Your task to perform on an android device: turn off data saver in the chrome app Image 0: 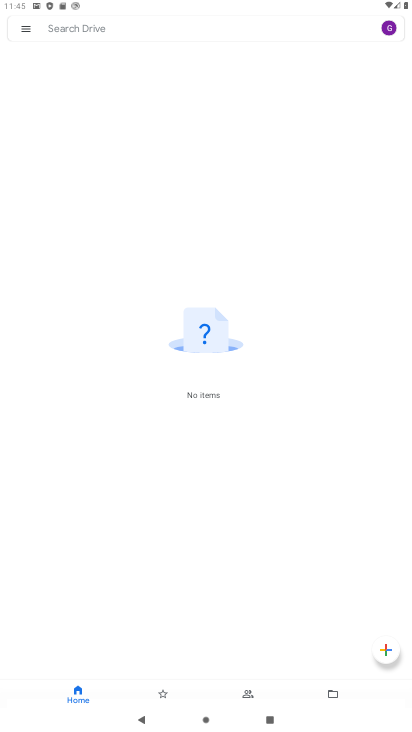
Step 0: press home button
Your task to perform on an android device: turn off data saver in the chrome app Image 1: 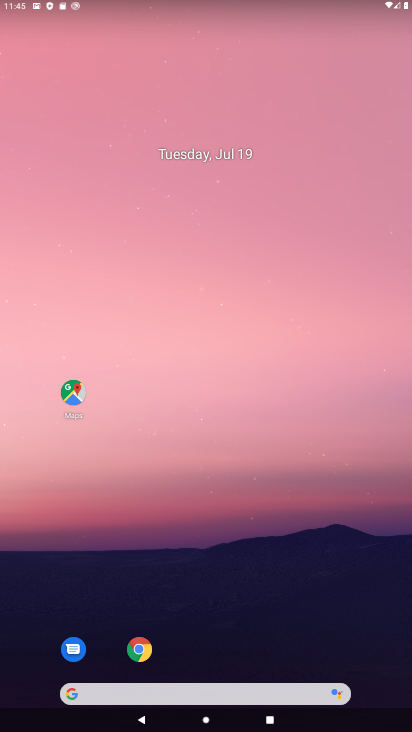
Step 1: click (152, 648)
Your task to perform on an android device: turn off data saver in the chrome app Image 2: 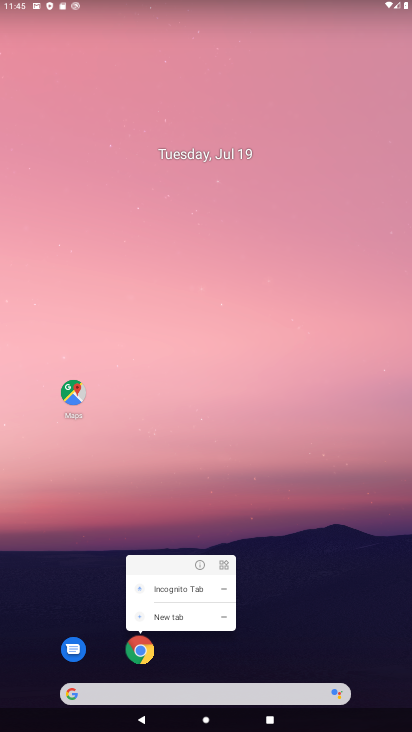
Step 2: click (145, 648)
Your task to perform on an android device: turn off data saver in the chrome app Image 3: 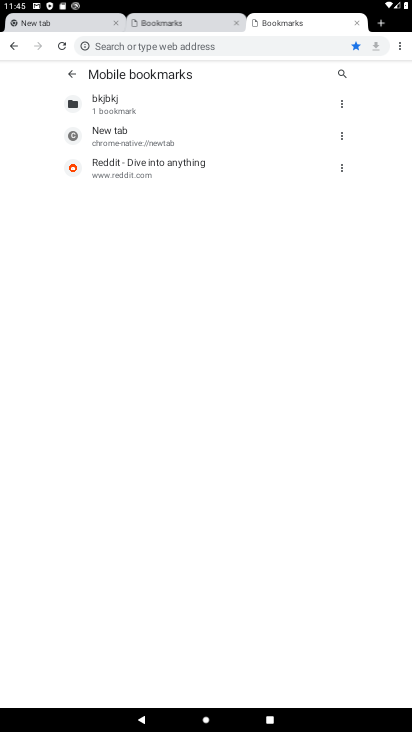
Step 3: click (397, 44)
Your task to perform on an android device: turn off data saver in the chrome app Image 4: 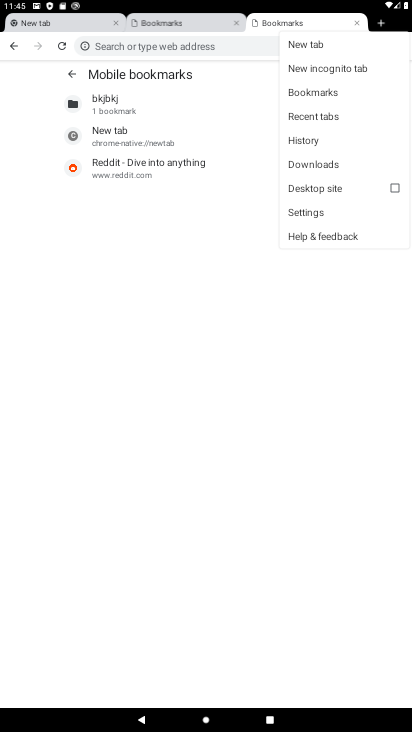
Step 4: click (313, 207)
Your task to perform on an android device: turn off data saver in the chrome app Image 5: 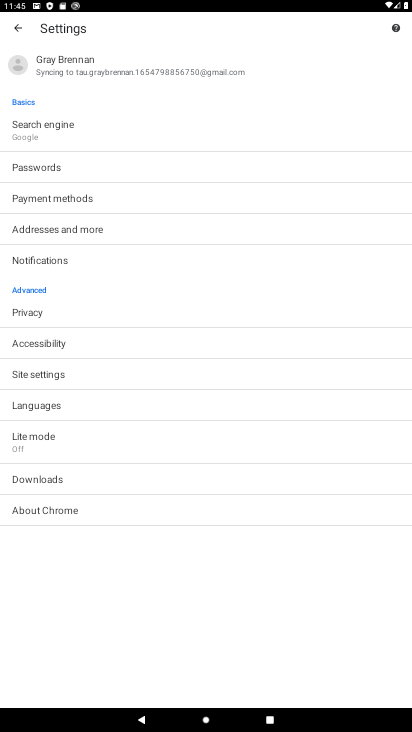
Step 5: click (24, 437)
Your task to perform on an android device: turn off data saver in the chrome app Image 6: 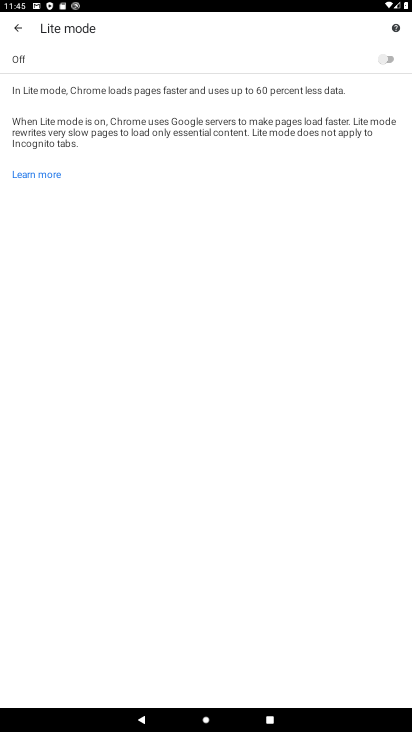
Step 6: task complete